Your task to perform on an android device: Open wifi settings Image 0: 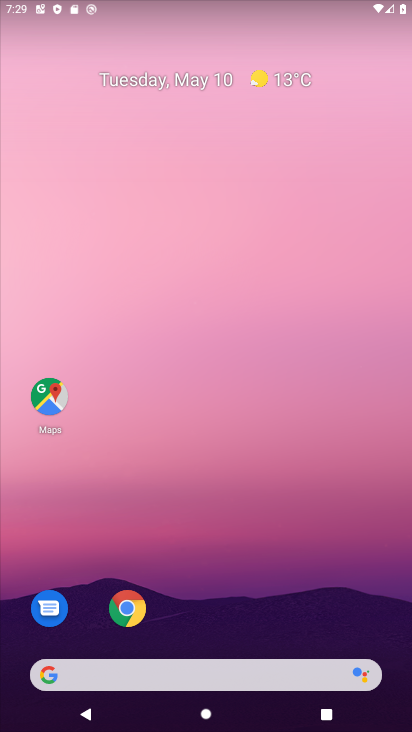
Step 0: drag from (232, 579) to (255, 224)
Your task to perform on an android device: Open wifi settings Image 1: 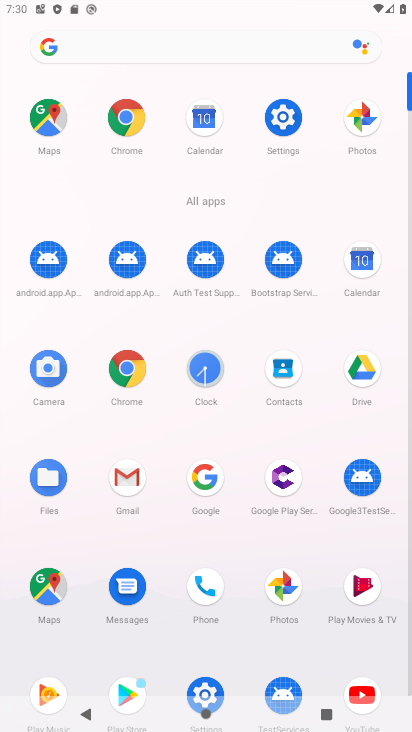
Step 1: click (218, 685)
Your task to perform on an android device: Open wifi settings Image 2: 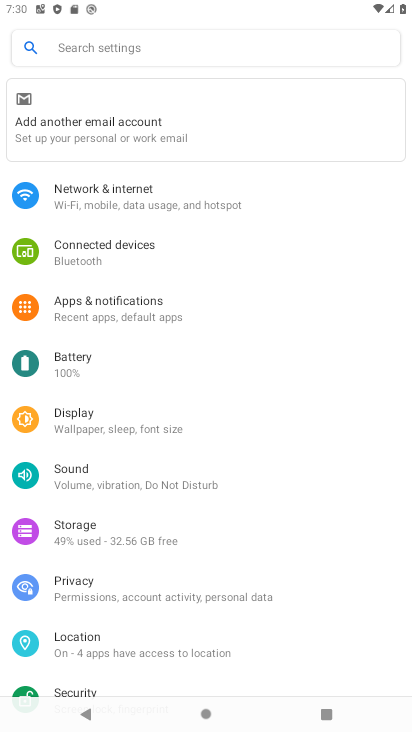
Step 2: click (136, 205)
Your task to perform on an android device: Open wifi settings Image 3: 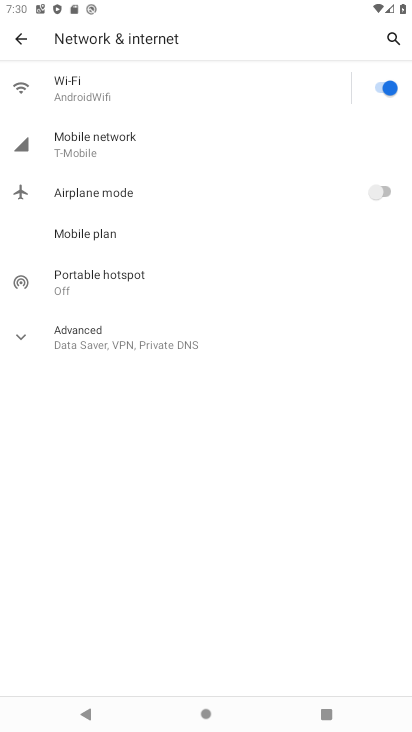
Step 3: click (141, 79)
Your task to perform on an android device: Open wifi settings Image 4: 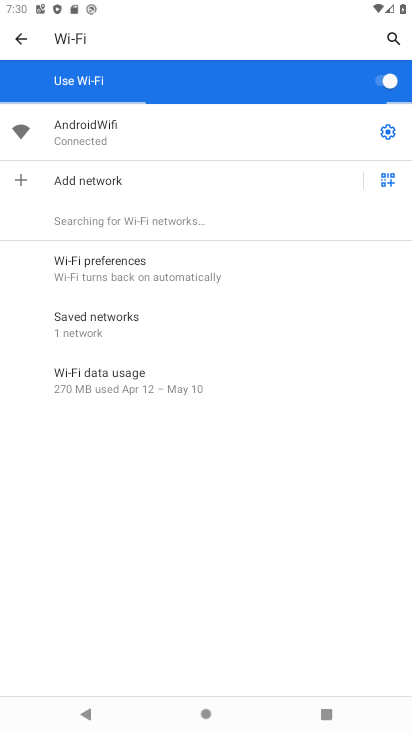
Step 4: task complete